Your task to perform on an android device: turn on data saver in the chrome app Image 0: 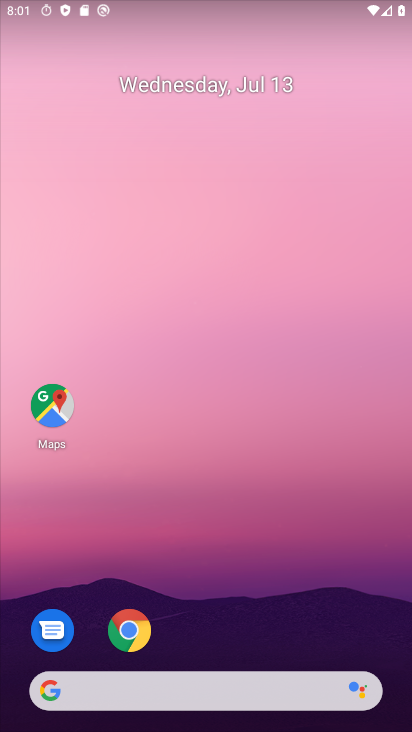
Step 0: drag from (199, 621) to (246, 326)
Your task to perform on an android device: turn on data saver in the chrome app Image 1: 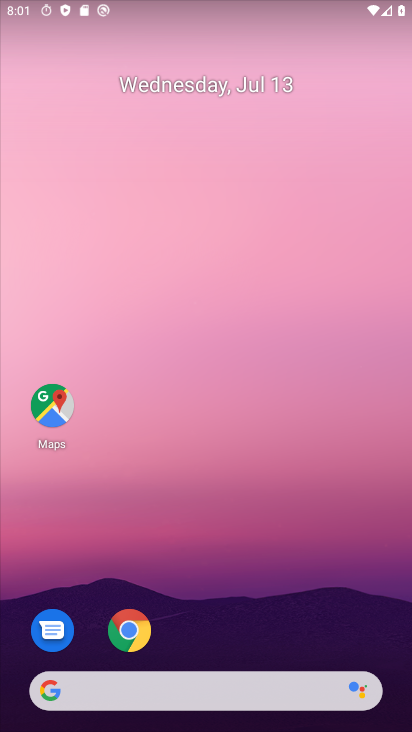
Step 1: drag from (180, 636) to (213, 186)
Your task to perform on an android device: turn on data saver in the chrome app Image 2: 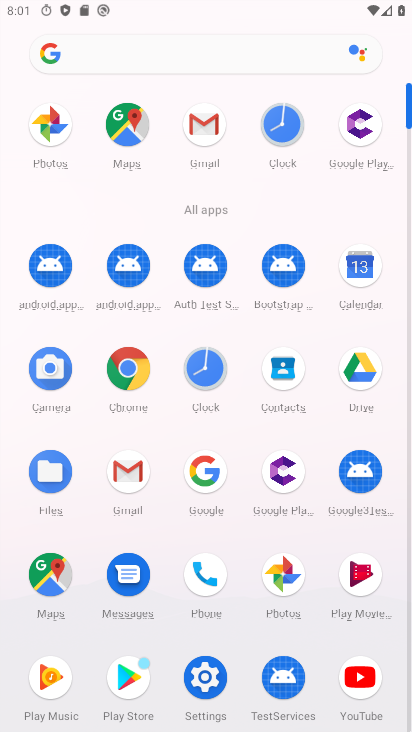
Step 2: drag from (237, 632) to (246, 354)
Your task to perform on an android device: turn on data saver in the chrome app Image 3: 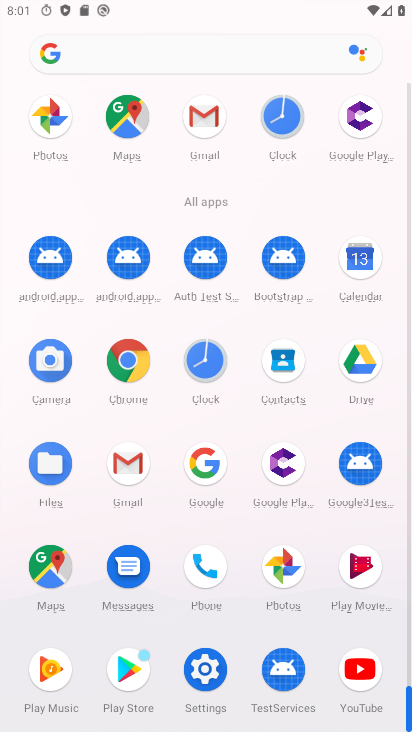
Step 3: click (125, 359)
Your task to perform on an android device: turn on data saver in the chrome app Image 4: 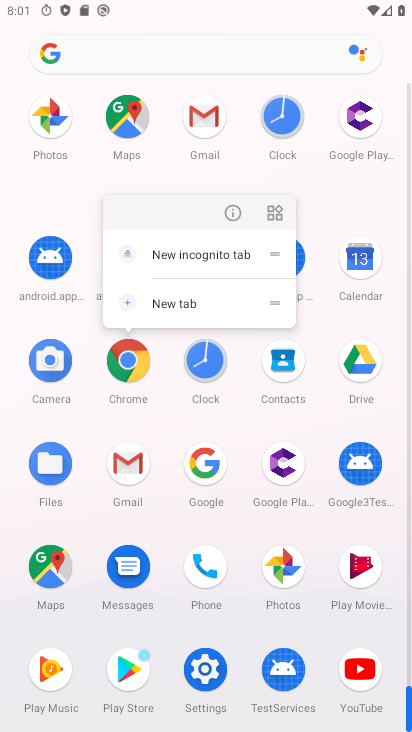
Step 4: click (239, 205)
Your task to perform on an android device: turn on data saver in the chrome app Image 5: 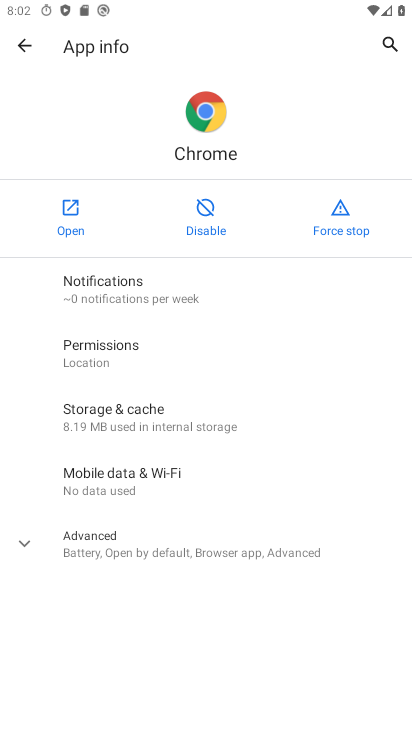
Step 5: click (74, 214)
Your task to perform on an android device: turn on data saver in the chrome app Image 6: 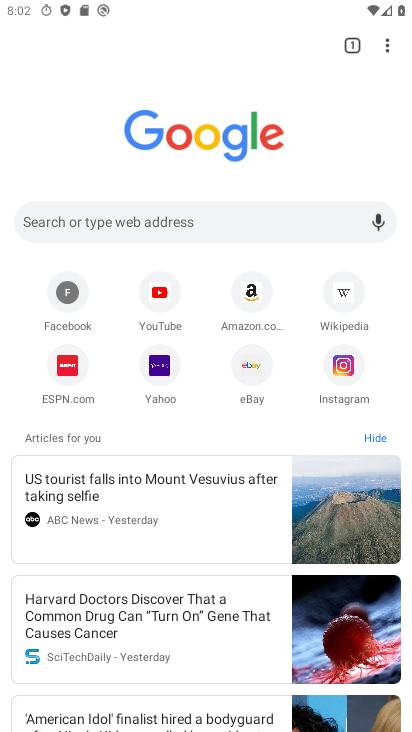
Step 6: click (385, 39)
Your task to perform on an android device: turn on data saver in the chrome app Image 7: 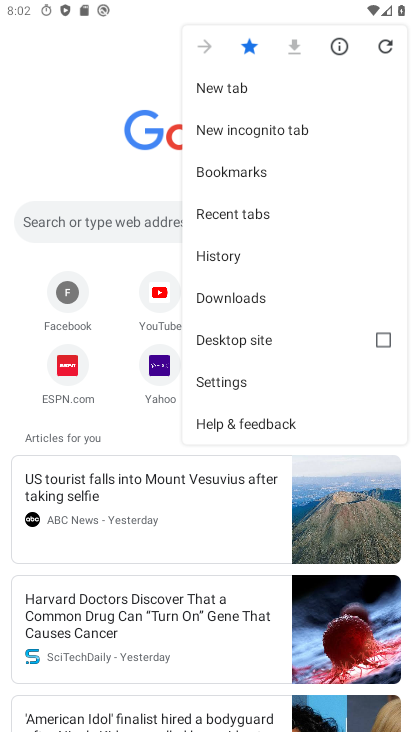
Step 7: click (245, 371)
Your task to perform on an android device: turn on data saver in the chrome app Image 8: 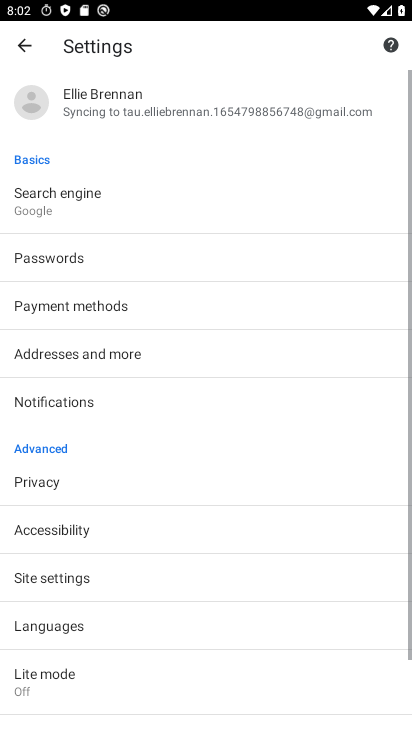
Step 8: drag from (216, 469) to (249, 311)
Your task to perform on an android device: turn on data saver in the chrome app Image 9: 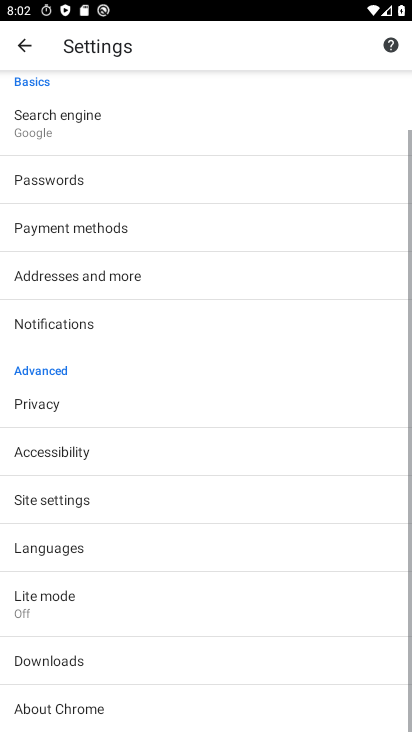
Step 9: drag from (289, 163) to (200, 704)
Your task to perform on an android device: turn on data saver in the chrome app Image 10: 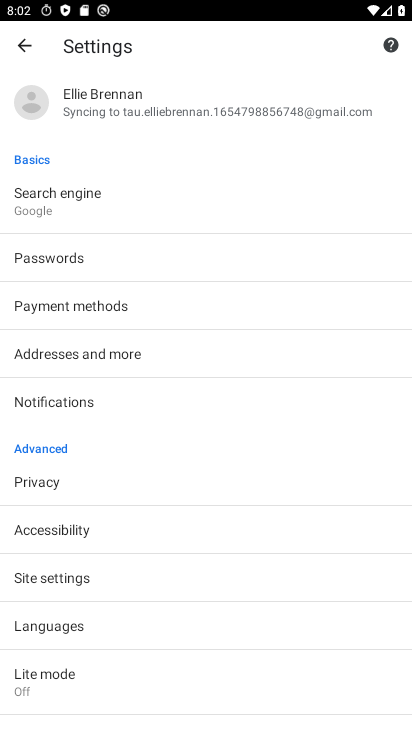
Step 10: drag from (173, 509) to (259, 248)
Your task to perform on an android device: turn on data saver in the chrome app Image 11: 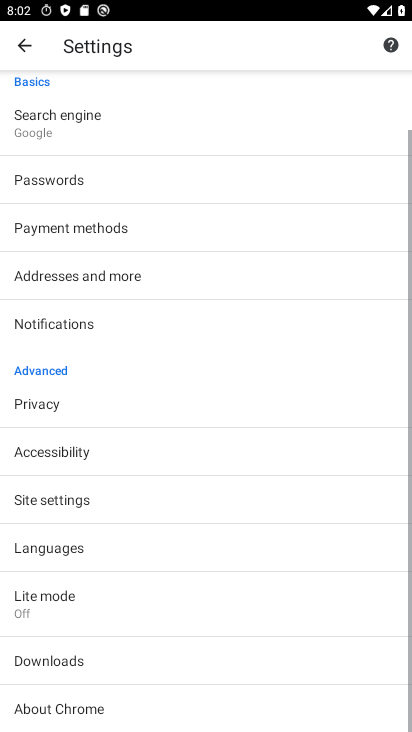
Step 11: click (91, 608)
Your task to perform on an android device: turn on data saver in the chrome app Image 12: 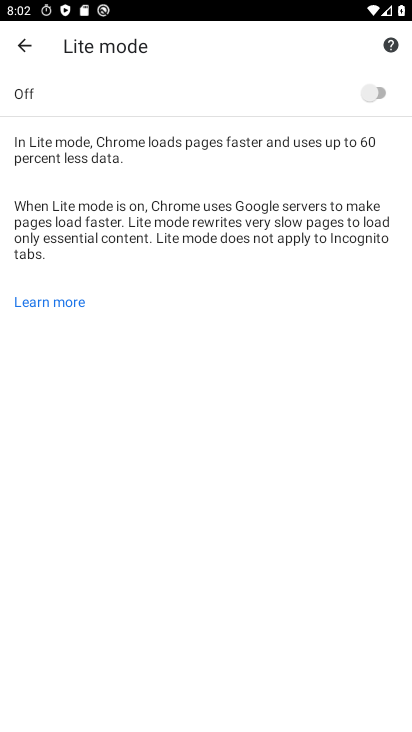
Step 12: click (167, 96)
Your task to perform on an android device: turn on data saver in the chrome app Image 13: 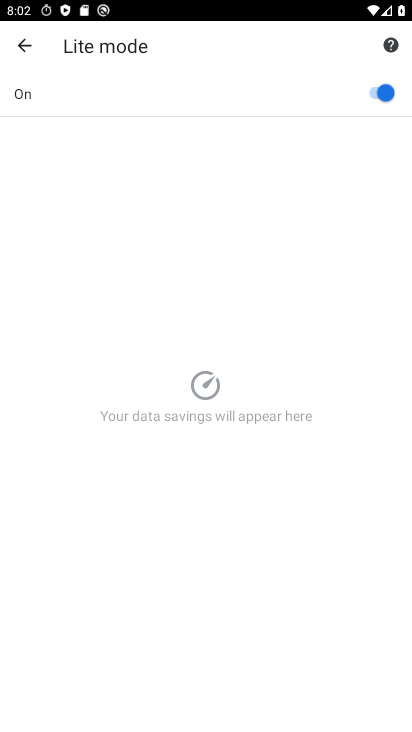
Step 13: task complete